Your task to perform on an android device: check battery use Image 0: 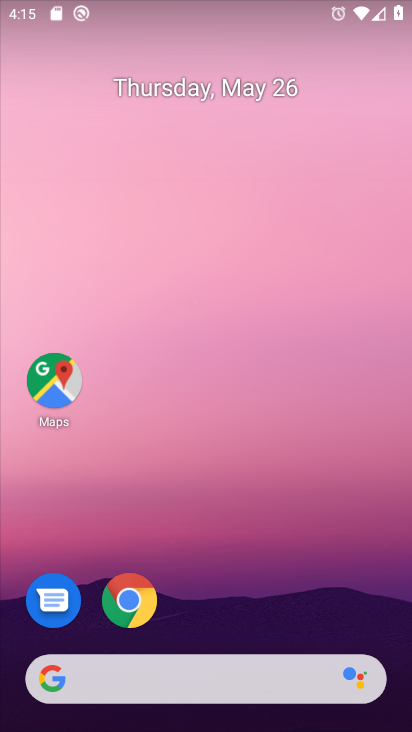
Step 0: drag from (243, 633) to (363, 26)
Your task to perform on an android device: check battery use Image 1: 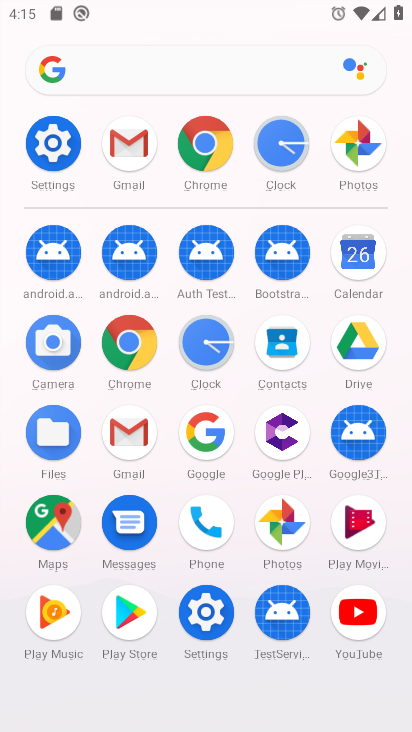
Step 1: click (55, 143)
Your task to perform on an android device: check battery use Image 2: 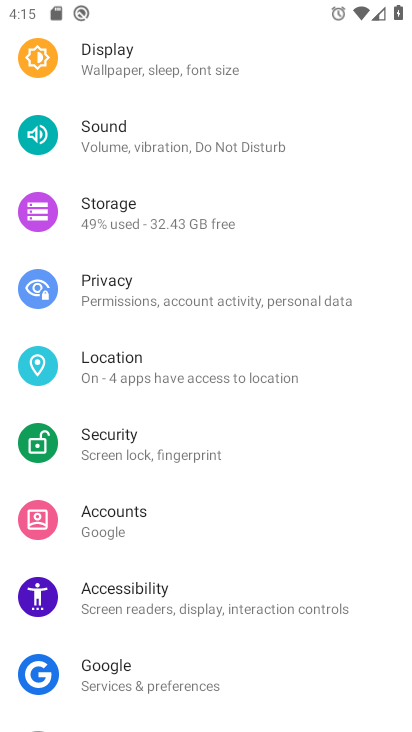
Step 2: drag from (177, 209) to (169, 546)
Your task to perform on an android device: check battery use Image 3: 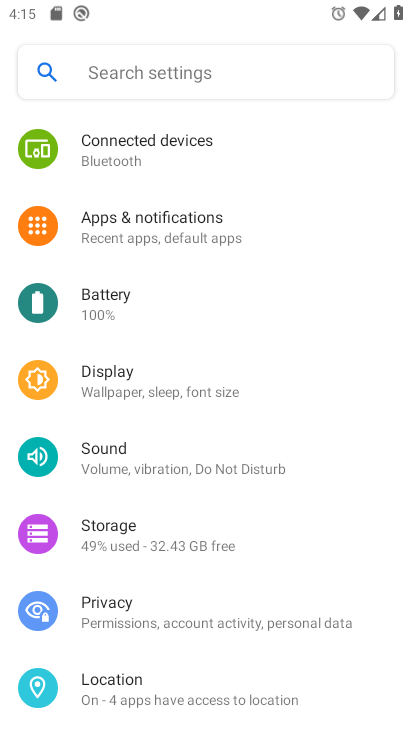
Step 3: click (97, 298)
Your task to perform on an android device: check battery use Image 4: 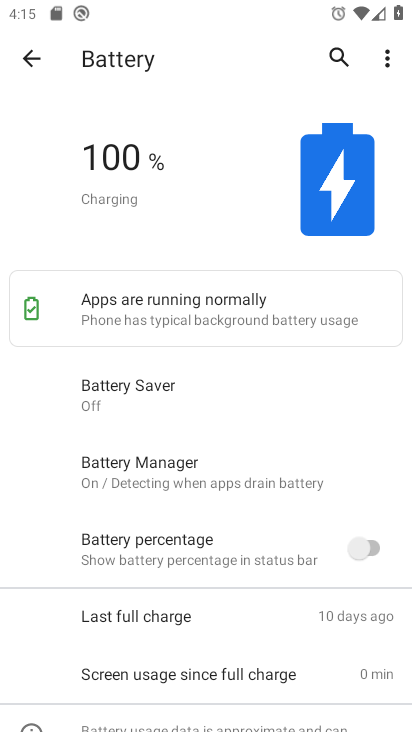
Step 4: click (392, 65)
Your task to perform on an android device: check battery use Image 5: 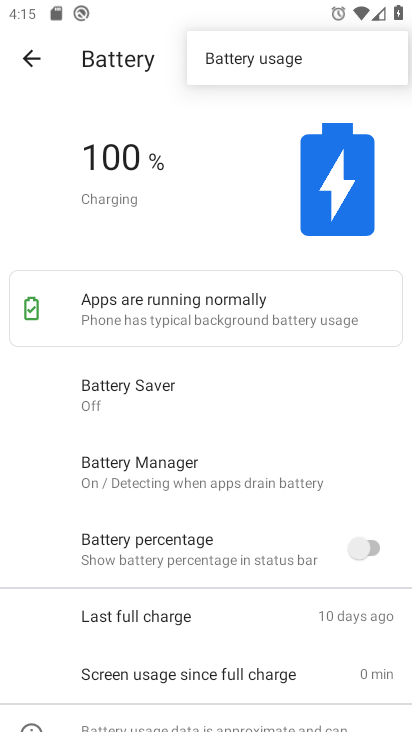
Step 5: click (327, 60)
Your task to perform on an android device: check battery use Image 6: 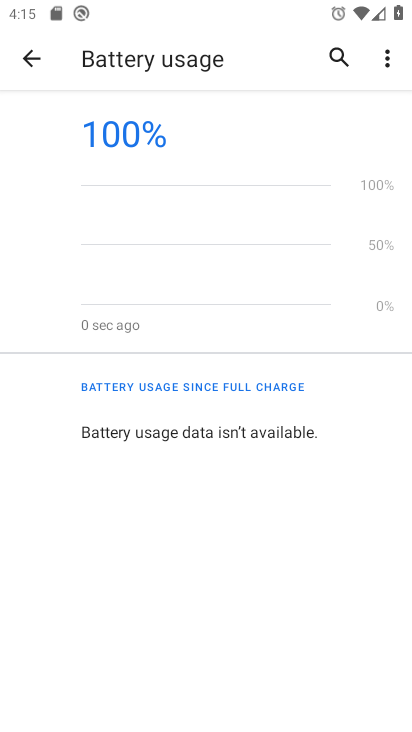
Step 6: task complete